Your task to perform on an android device: Open ESPN.com Image 0: 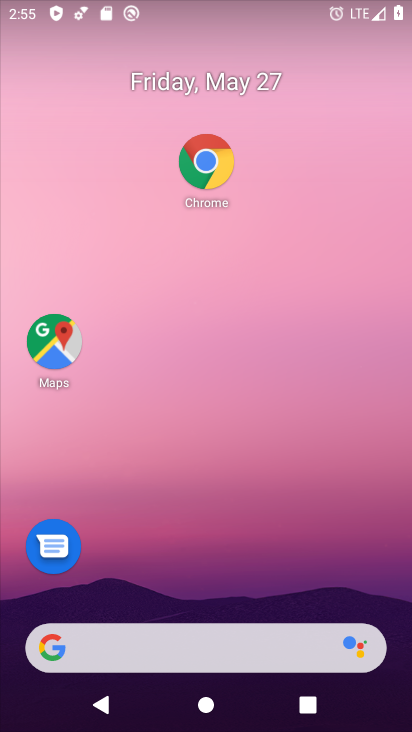
Step 0: click (212, 160)
Your task to perform on an android device: Open ESPN.com Image 1: 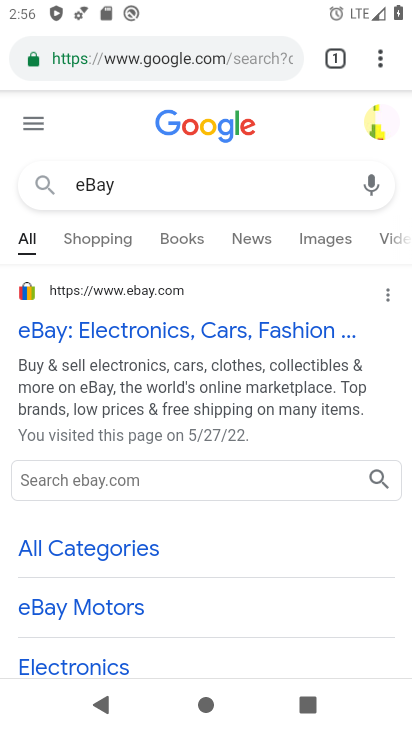
Step 1: type "ESPN.com"
Your task to perform on an android device: Open ESPN.com Image 2: 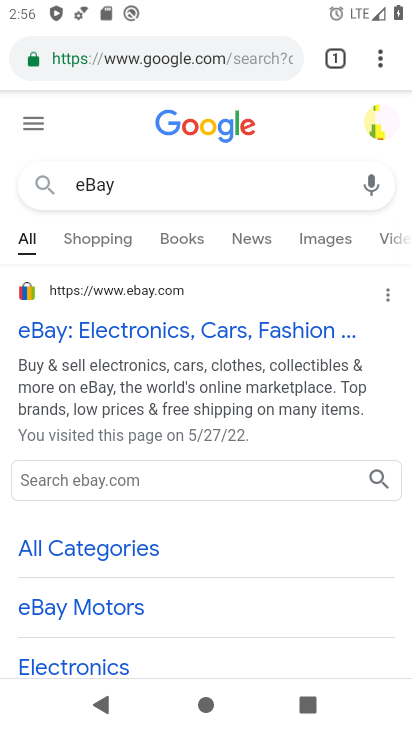
Step 2: click (135, 62)
Your task to perform on an android device: Open ESPN.com Image 3: 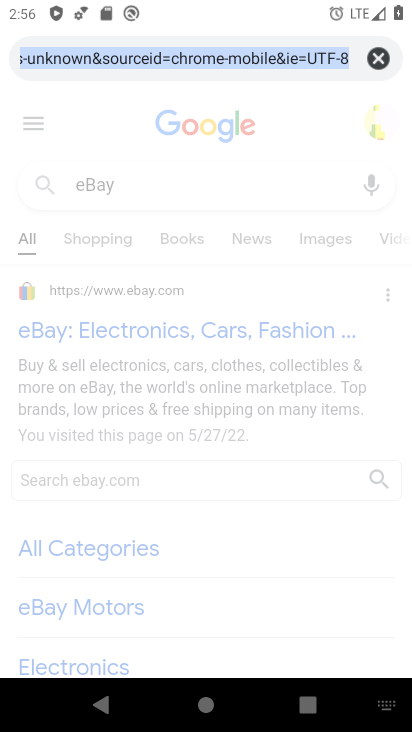
Step 3: type "ESPN.com"
Your task to perform on an android device: Open ESPN.com Image 4: 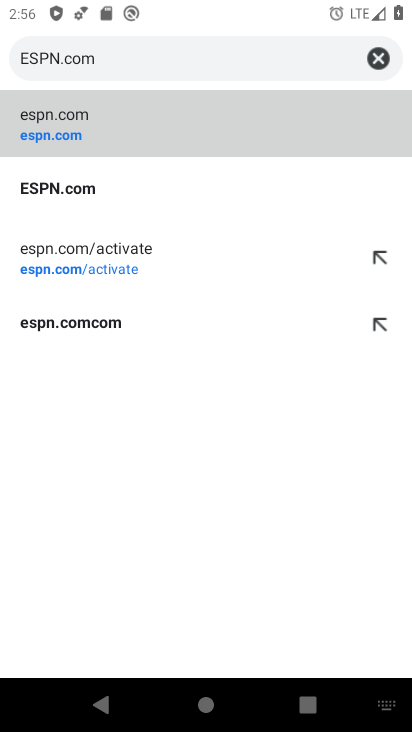
Step 4: click (76, 193)
Your task to perform on an android device: Open ESPN.com Image 5: 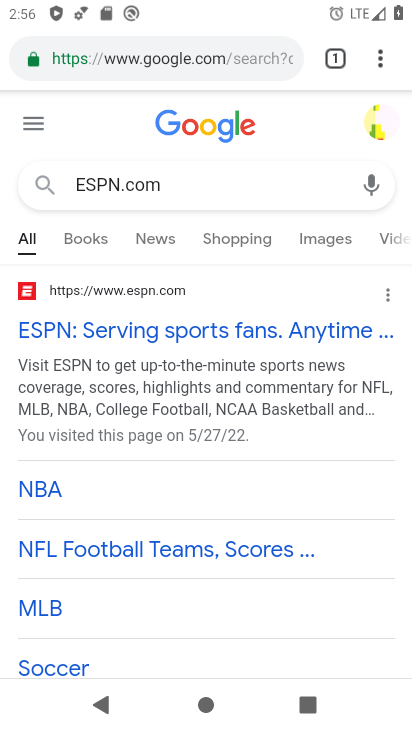
Step 5: task complete